Your task to perform on an android device: open app "Microsoft Excel" (install if not already installed) and go to login screen Image 0: 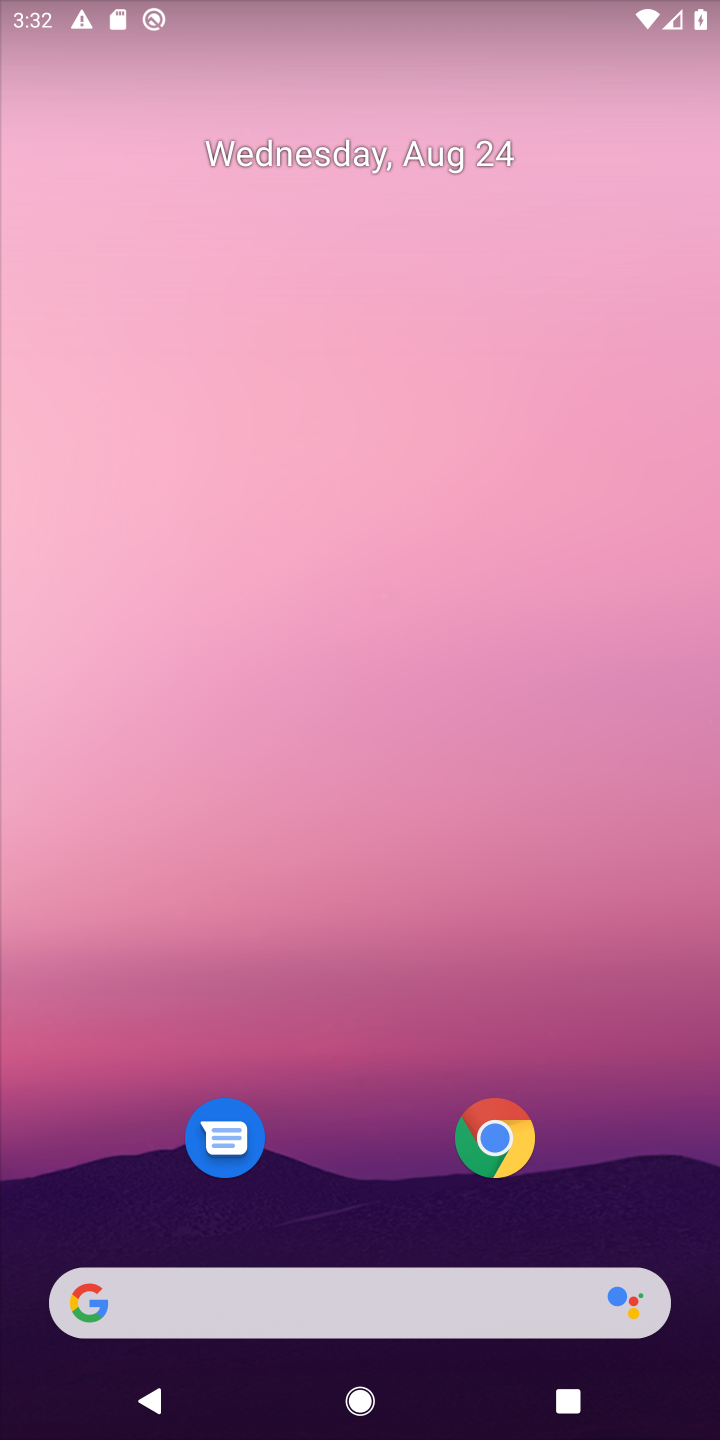
Step 0: drag from (368, 1016) to (368, 268)
Your task to perform on an android device: open app "Microsoft Excel" (install if not already installed) and go to login screen Image 1: 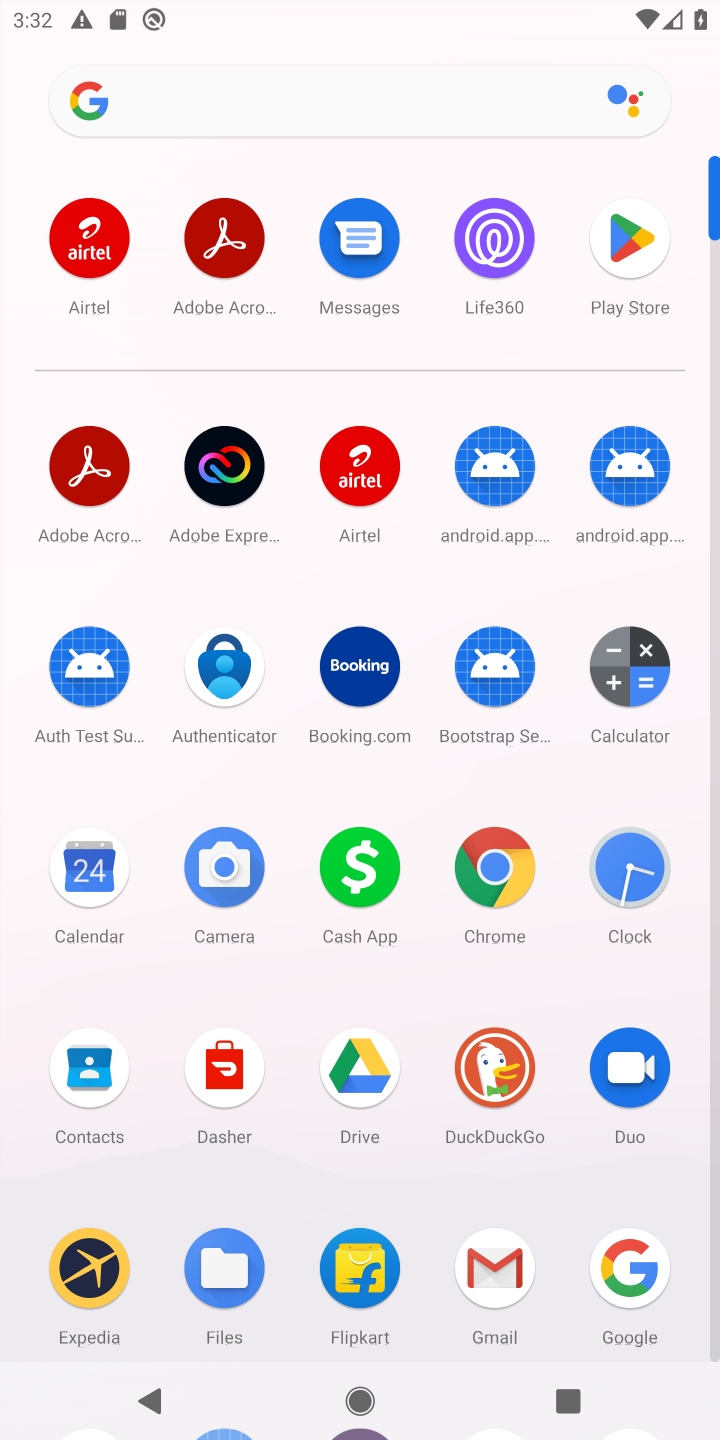
Step 1: click (627, 242)
Your task to perform on an android device: open app "Microsoft Excel" (install if not already installed) and go to login screen Image 2: 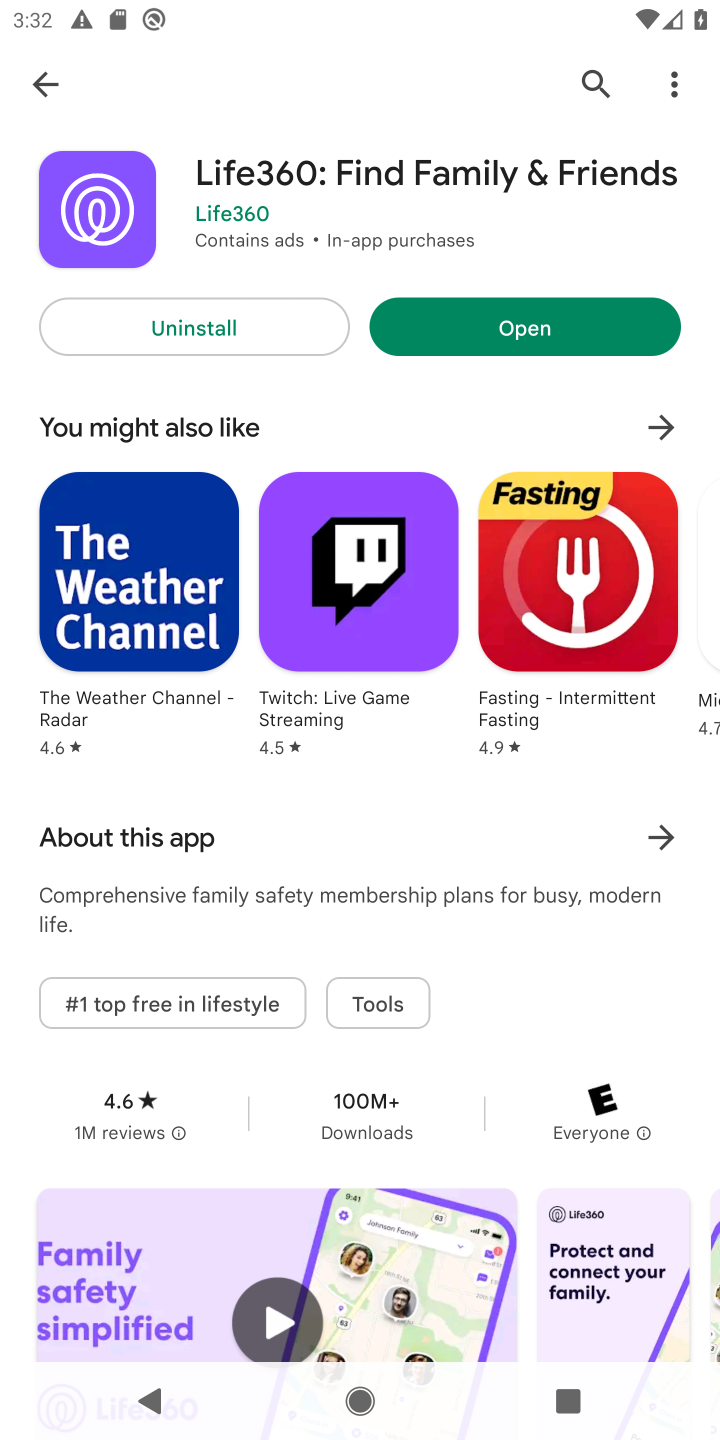
Step 2: click (591, 81)
Your task to perform on an android device: open app "Microsoft Excel" (install if not already installed) and go to login screen Image 3: 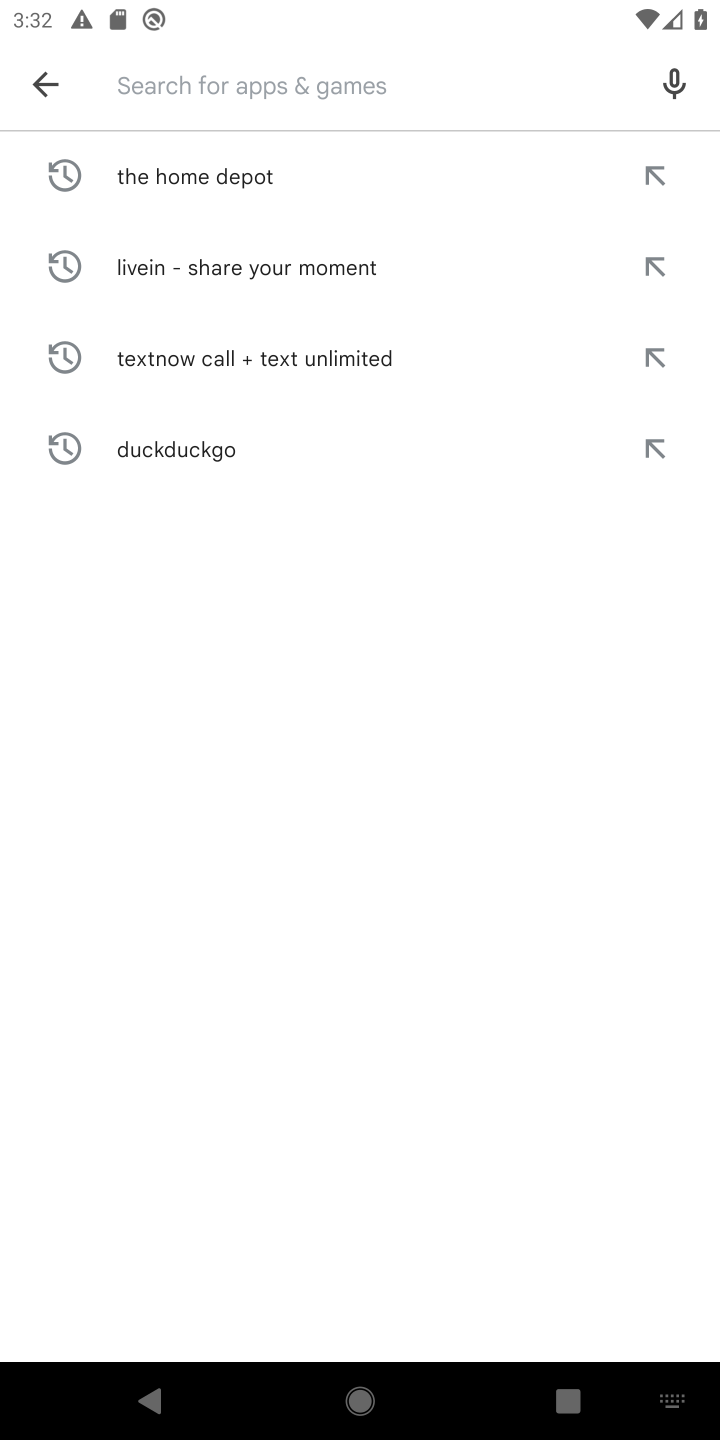
Step 3: type "Microsoft Excel"
Your task to perform on an android device: open app "Microsoft Excel" (install if not already installed) and go to login screen Image 4: 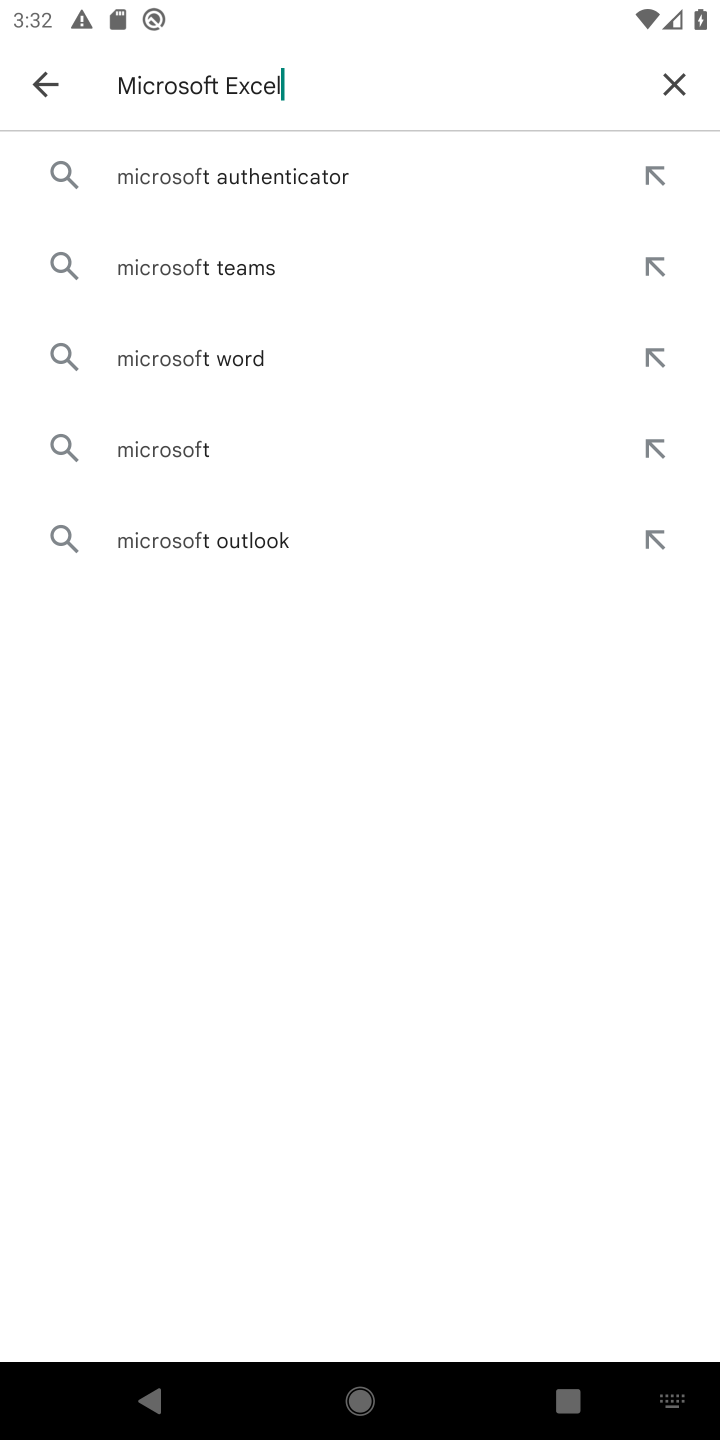
Step 4: type ""
Your task to perform on an android device: open app "Microsoft Excel" (install if not already installed) and go to login screen Image 5: 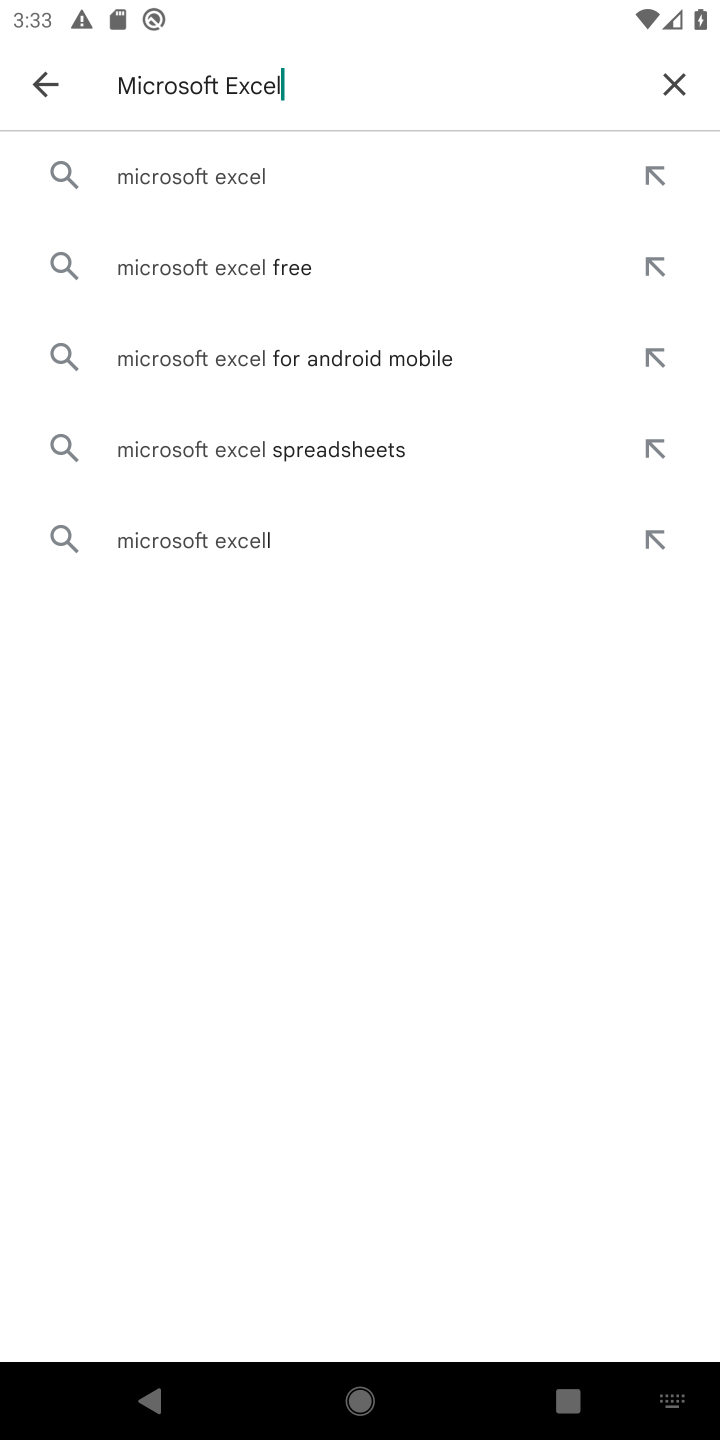
Step 5: click (237, 182)
Your task to perform on an android device: open app "Microsoft Excel" (install if not already installed) and go to login screen Image 6: 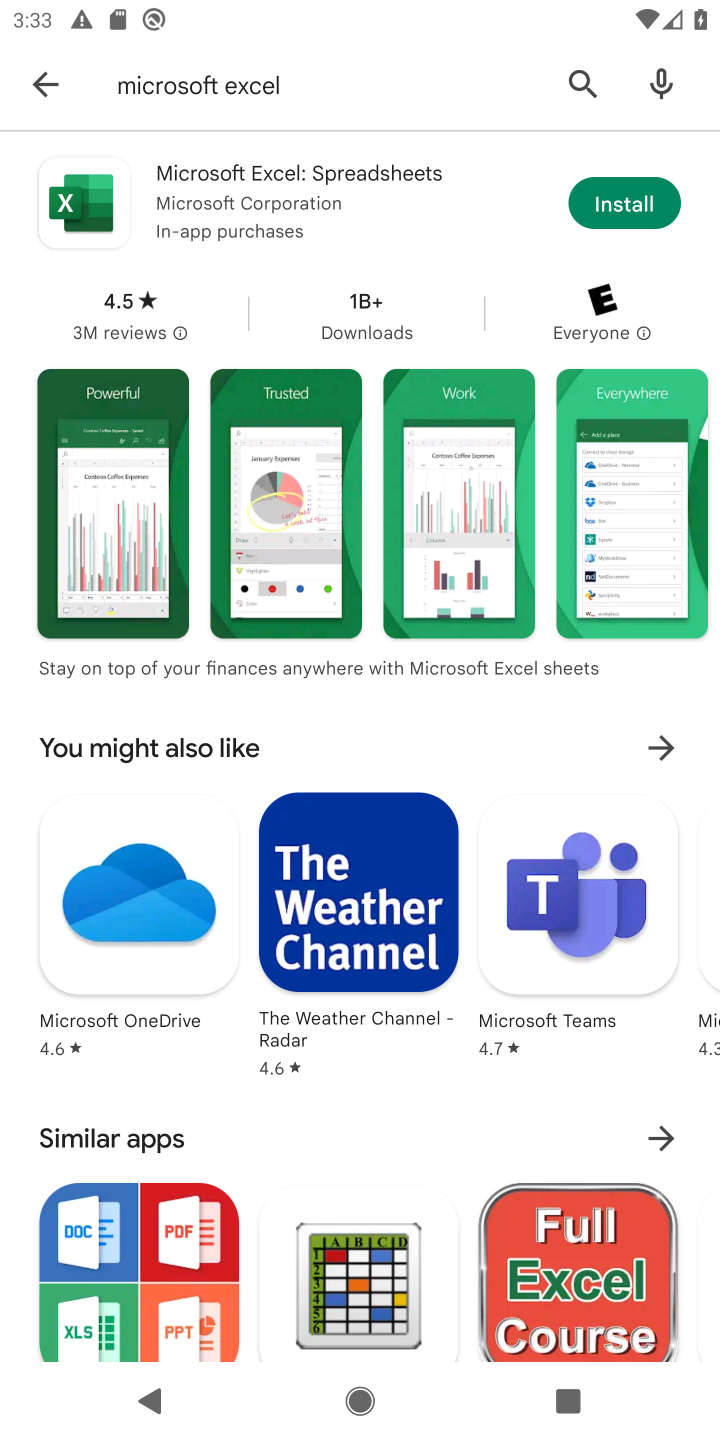
Step 6: click (628, 212)
Your task to perform on an android device: open app "Microsoft Excel" (install if not already installed) and go to login screen Image 7: 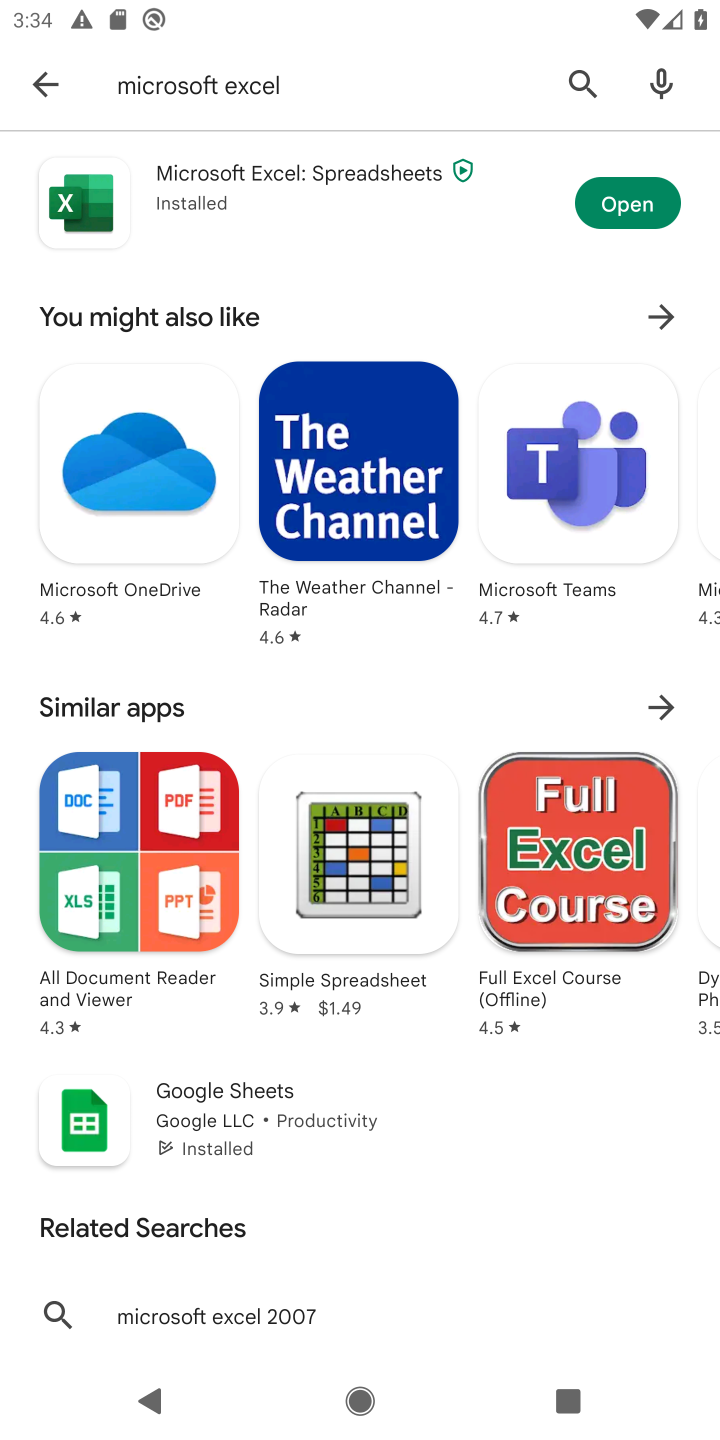
Step 7: click (647, 202)
Your task to perform on an android device: open app "Microsoft Excel" (install if not already installed) and go to login screen Image 8: 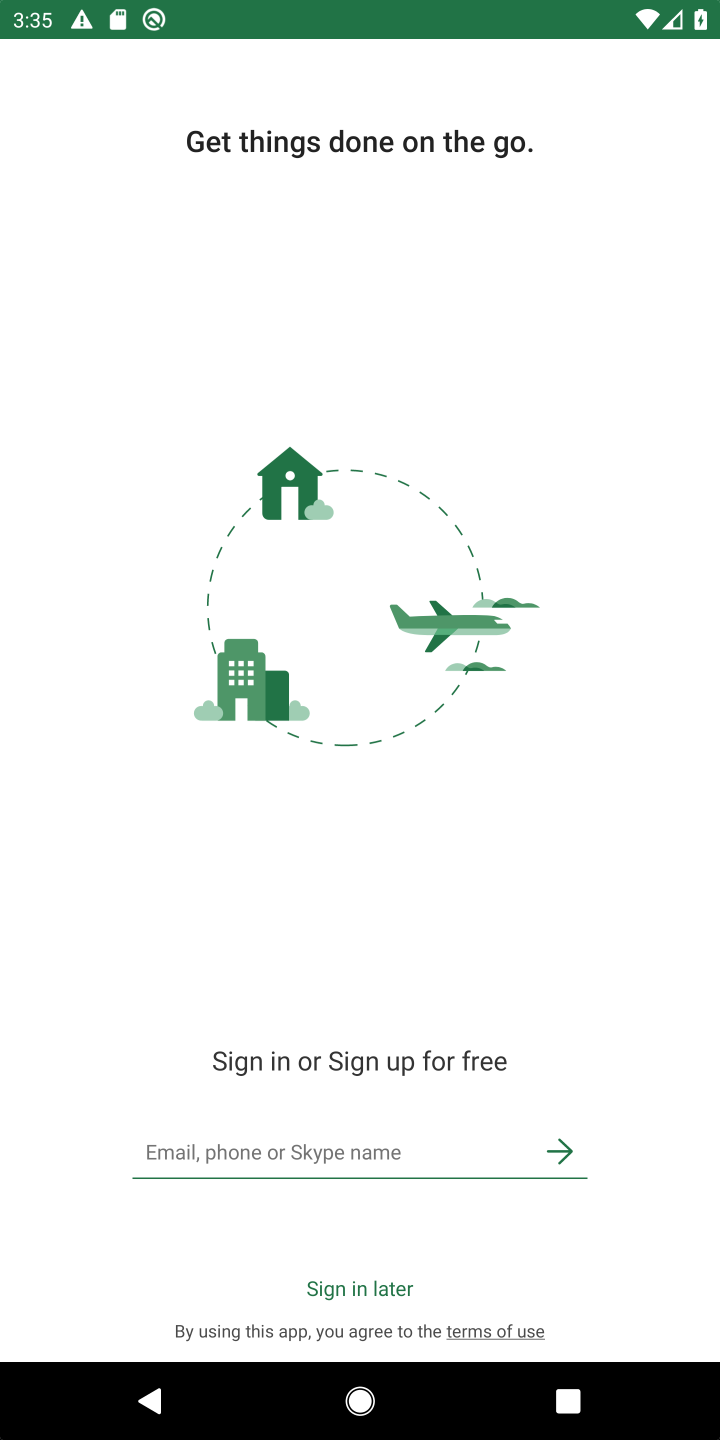
Step 8: task complete